Your task to perform on an android device: Go to Wikipedia Image 0: 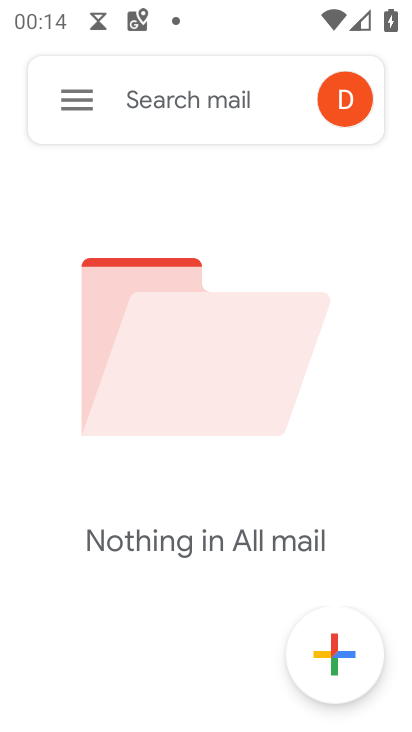
Step 0: press home button
Your task to perform on an android device: Go to Wikipedia Image 1: 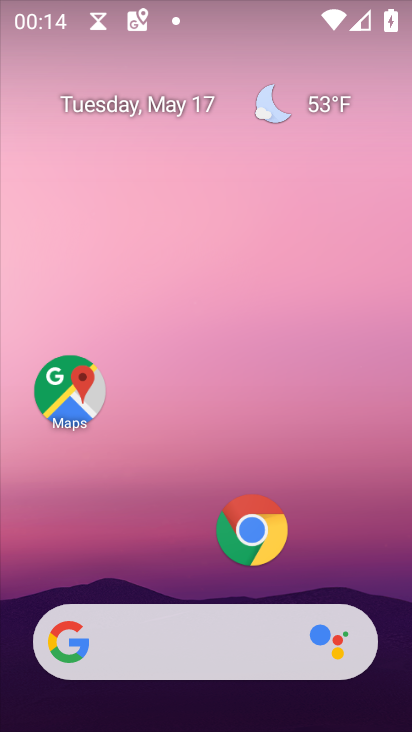
Step 1: click (248, 542)
Your task to perform on an android device: Go to Wikipedia Image 2: 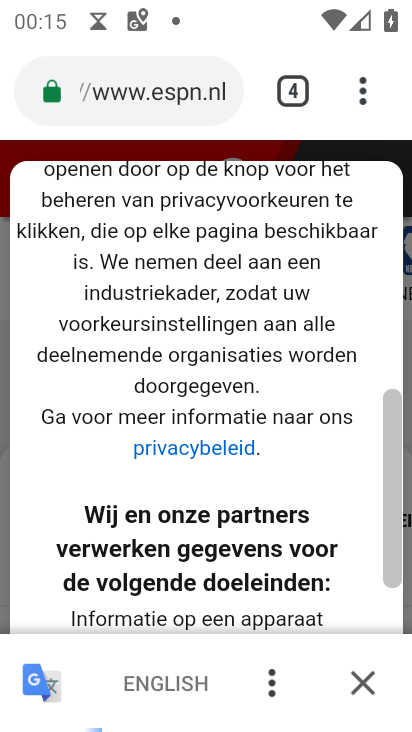
Step 2: click (290, 80)
Your task to perform on an android device: Go to Wikipedia Image 3: 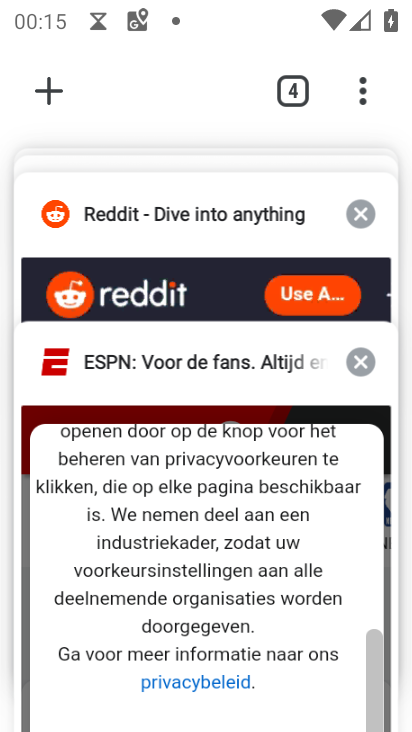
Step 3: click (45, 92)
Your task to perform on an android device: Go to Wikipedia Image 4: 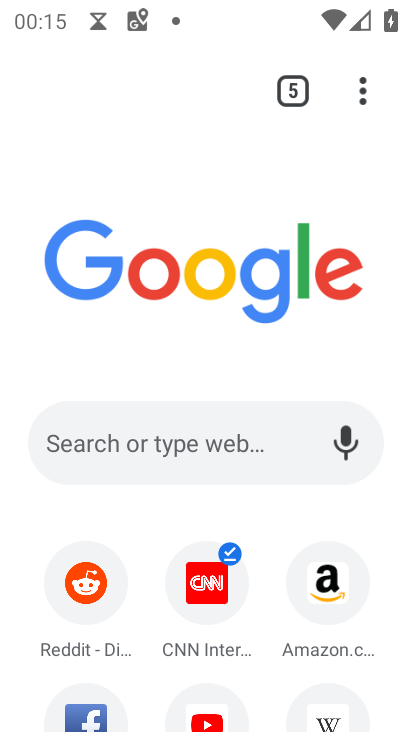
Step 4: click (345, 717)
Your task to perform on an android device: Go to Wikipedia Image 5: 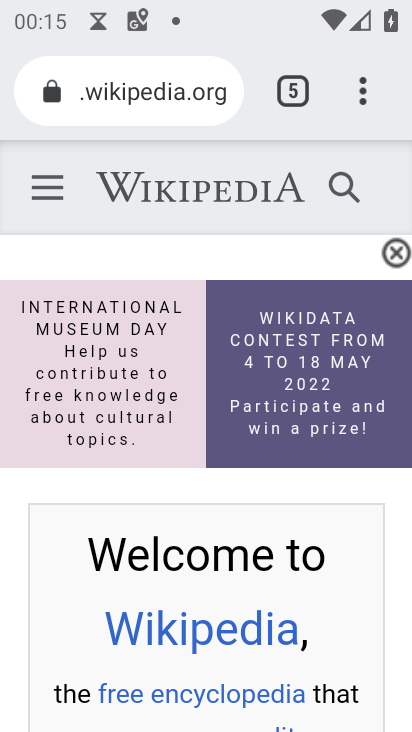
Step 5: task complete